Your task to perform on an android device: find which apps use the phone's location Image 0: 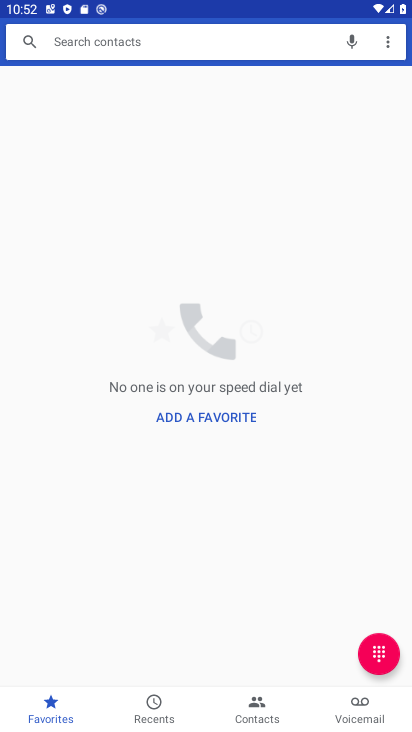
Step 0: press home button
Your task to perform on an android device: find which apps use the phone's location Image 1: 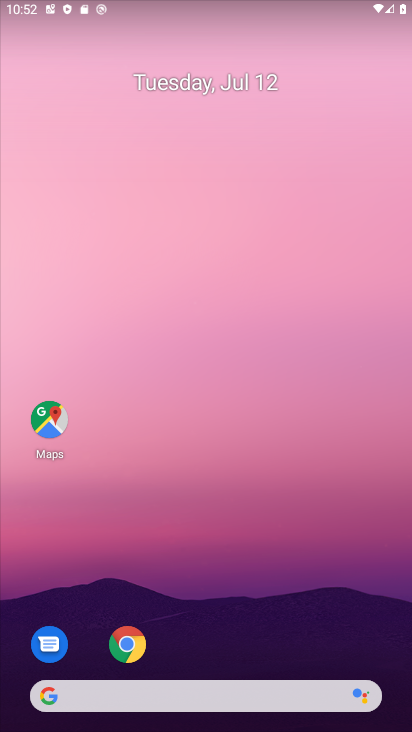
Step 1: drag from (212, 656) to (265, 1)
Your task to perform on an android device: find which apps use the phone's location Image 2: 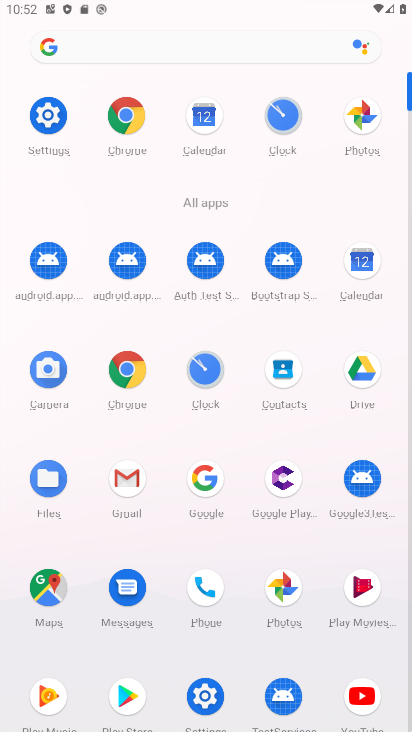
Step 2: click (45, 108)
Your task to perform on an android device: find which apps use the phone's location Image 3: 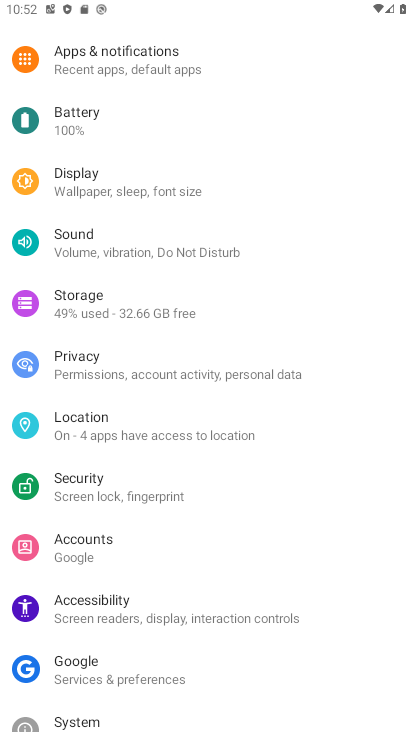
Step 3: click (118, 417)
Your task to perform on an android device: find which apps use the phone's location Image 4: 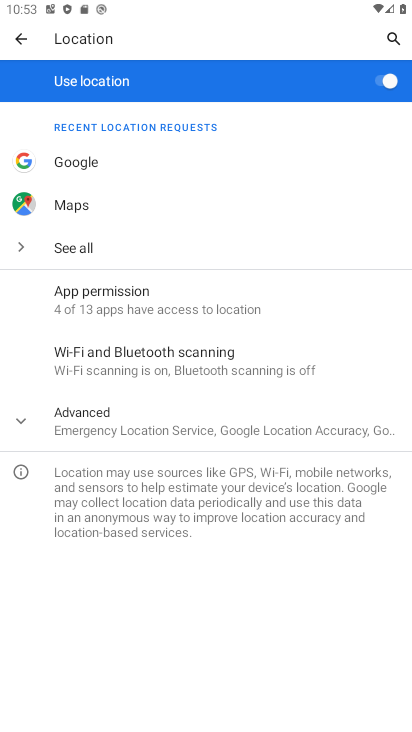
Step 4: click (32, 424)
Your task to perform on an android device: find which apps use the phone's location Image 5: 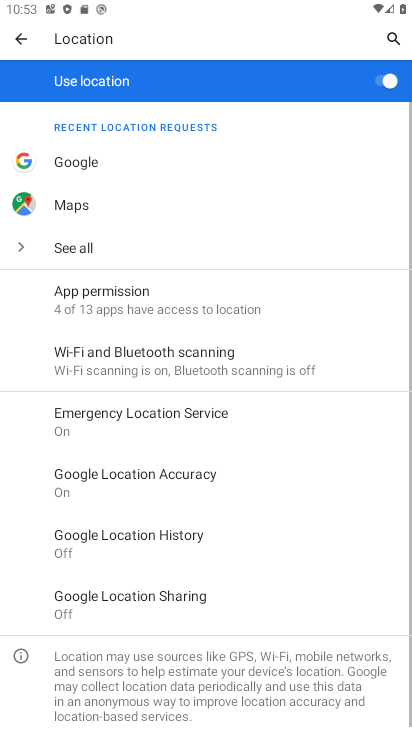
Step 5: click (170, 295)
Your task to perform on an android device: find which apps use the phone's location Image 6: 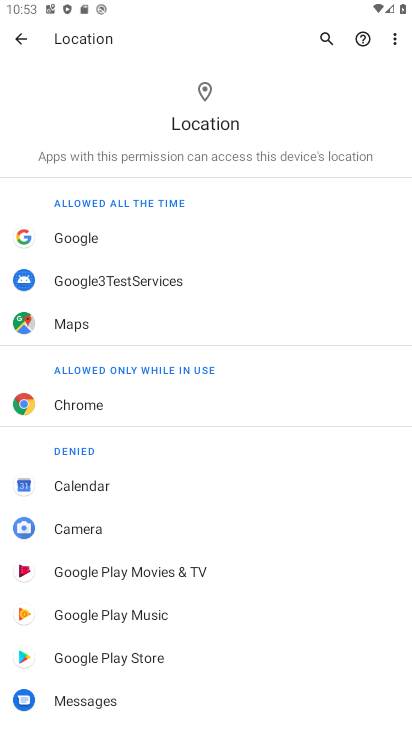
Step 6: task complete